Your task to perform on an android device: set the stopwatch Image 0: 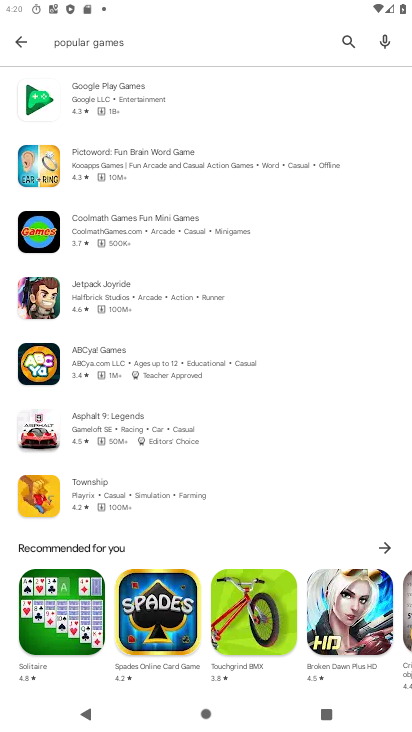
Step 0: press home button
Your task to perform on an android device: set the stopwatch Image 1: 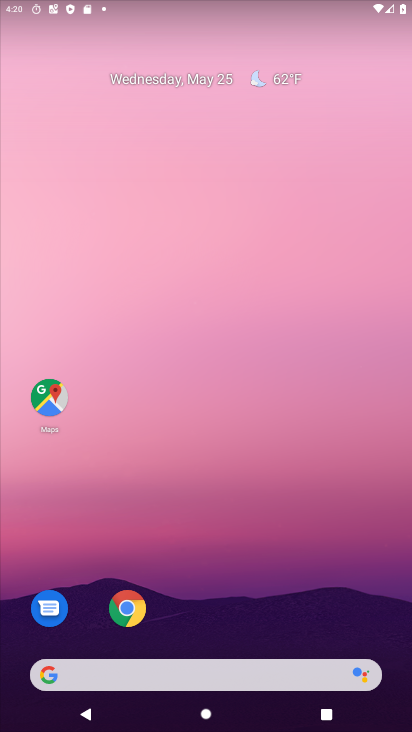
Step 1: drag from (232, 541) to (211, 79)
Your task to perform on an android device: set the stopwatch Image 2: 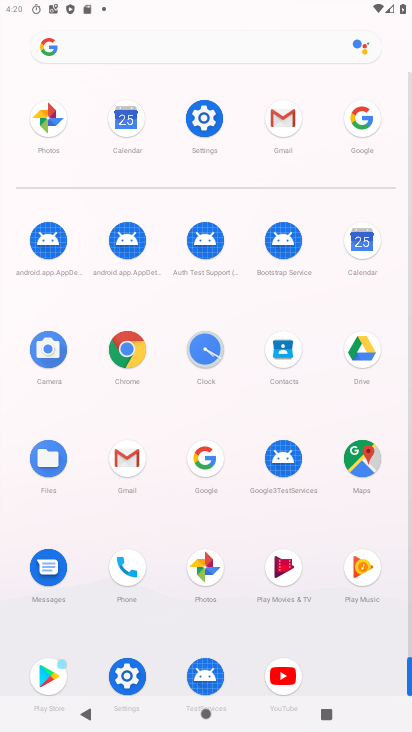
Step 2: click (204, 351)
Your task to perform on an android device: set the stopwatch Image 3: 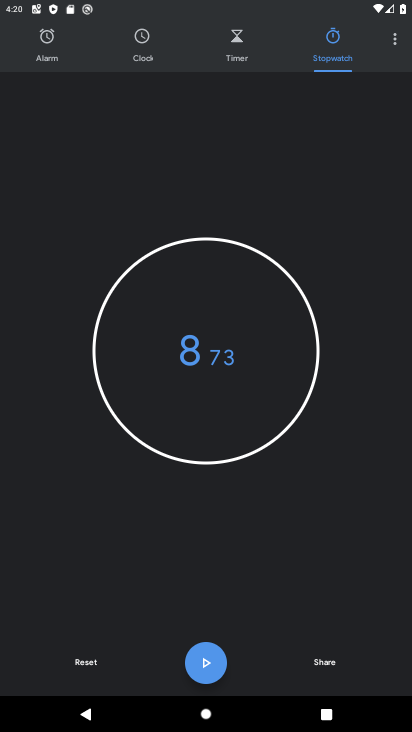
Step 3: click (94, 661)
Your task to perform on an android device: set the stopwatch Image 4: 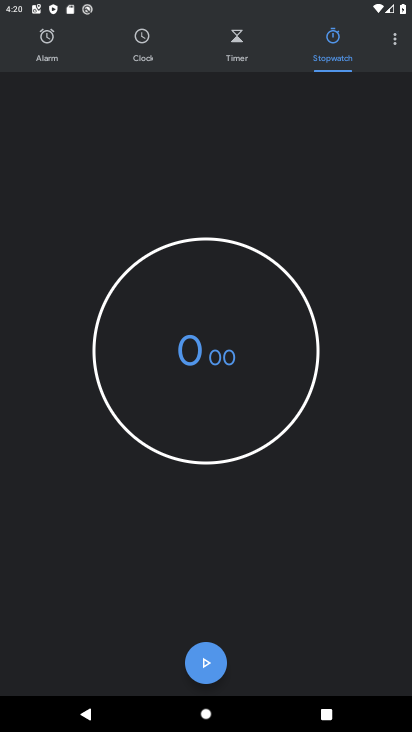
Step 4: click (194, 654)
Your task to perform on an android device: set the stopwatch Image 5: 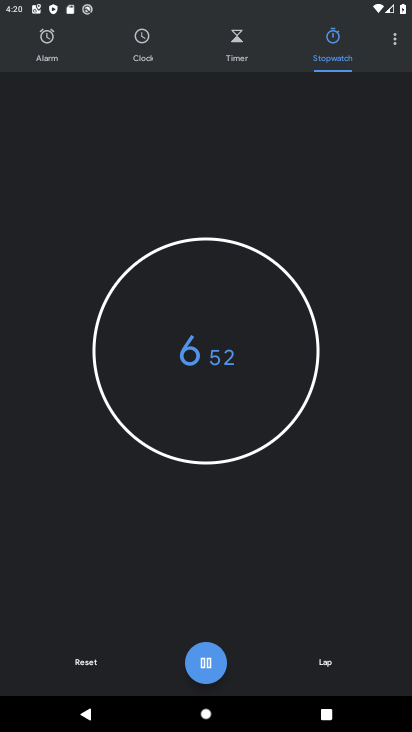
Step 5: click (204, 662)
Your task to perform on an android device: set the stopwatch Image 6: 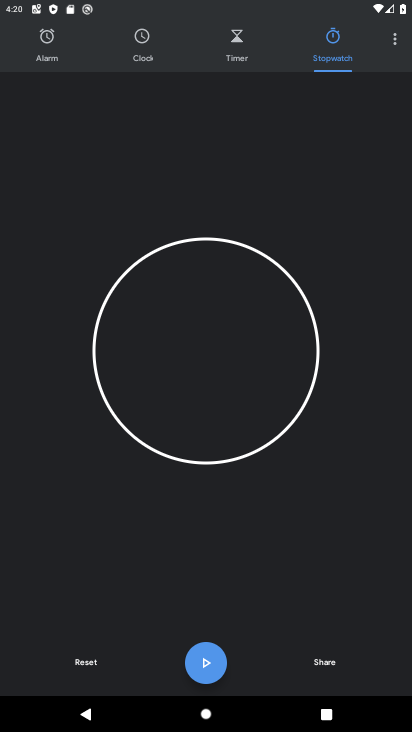
Step 6: task complete